Your task to perform on an android device: What's on my calendar tomorrow? Image 0: 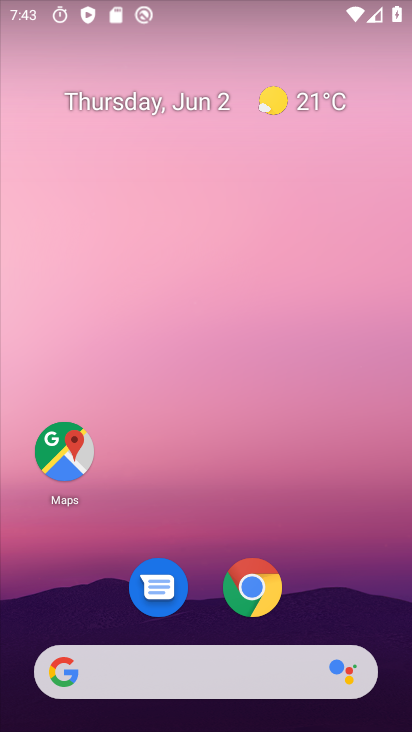
Step 0: drag from (335, 615) to (308, 16)
Your task to perform on an android device: What's on my calendar tomorrow? Image 1: 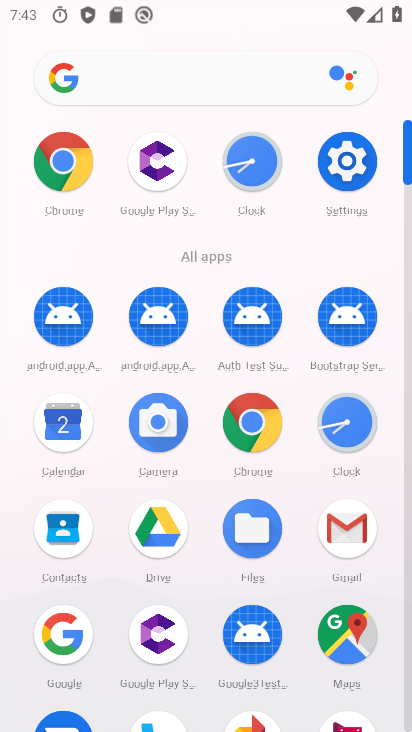
Step 1: click (73, 433)
Your task to perform on an android device: What's on my calendar tomorrow? Image 2: 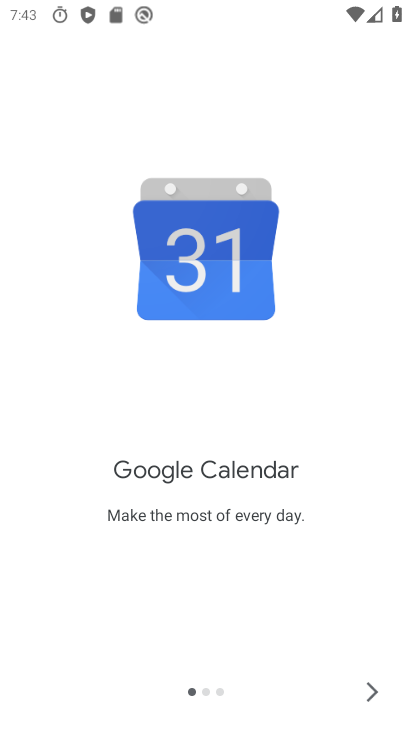
Step 2: click (373, 698)
Your task to perform on an android device: What's on my calendar tomorrow? Image 3: 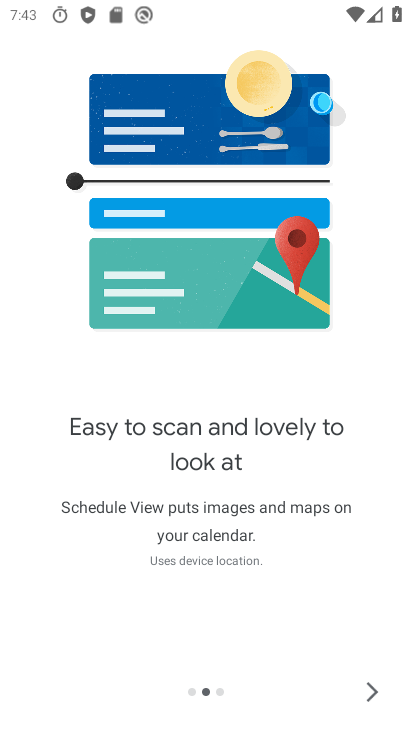
Step 3: click (373, 698)
Your task to perform on an android device: What's on my calendar tomorrow? Image 4: 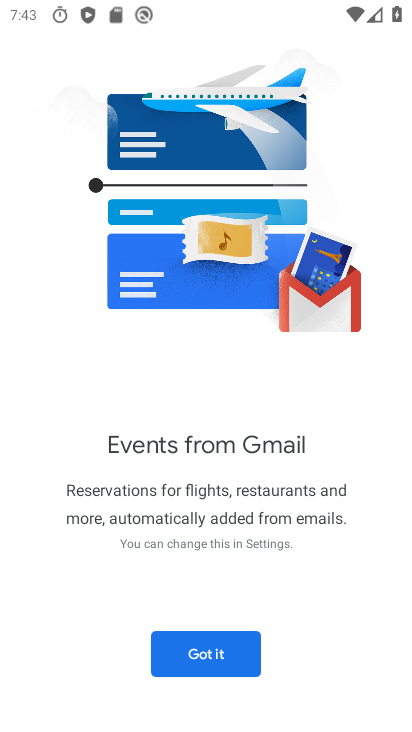
Step 4: click (201, 655)
Your task to perform on an android device: What's on my calendar tomorrow? Image 5: 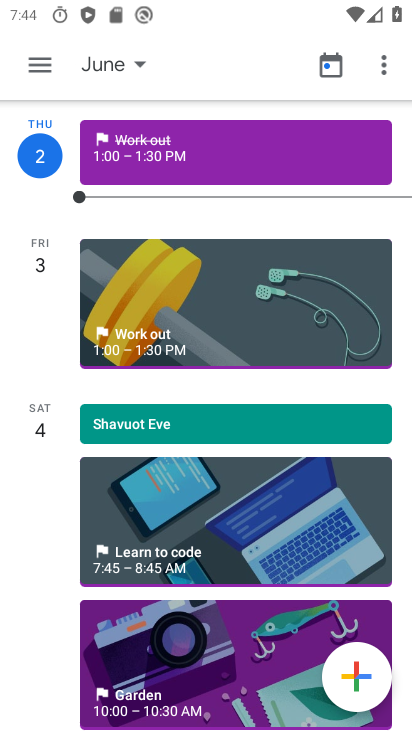
Step 5: click (33, 58)
Your task to perform on an android device: What's on my calendar tomorrow? Image 6: 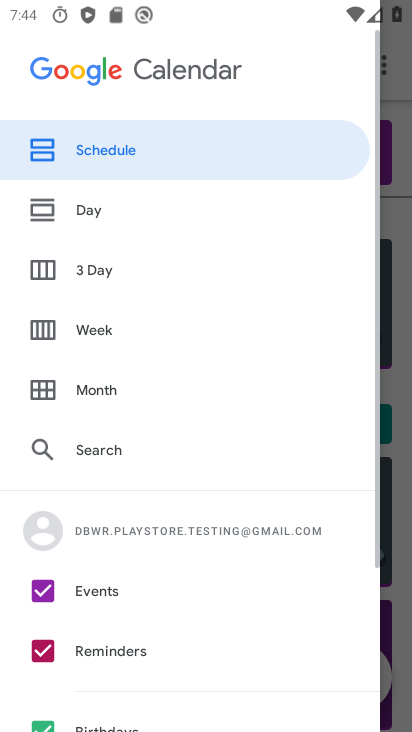
Step 6: click (68, 218)
Your task to perform on an android device: What's on my calendar tomorrow? Image 7: 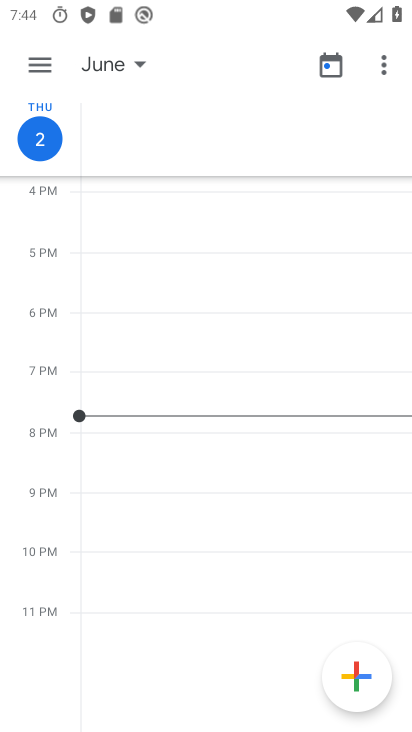
Step 7: click (138, 63)
Your task to perform on an android device: What's on my calendar tomorrow? Image 8: 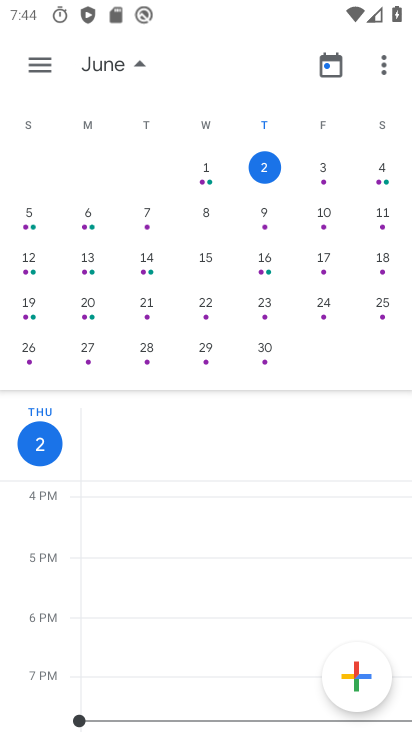
Step 8: click (321, 170)
Your task to perform on an android device: What's on my calendar tomorrow? Image 9: 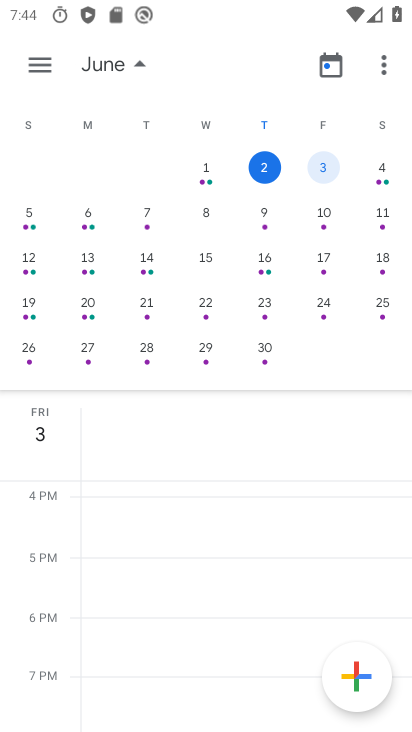
Step 9: task complete